Your task to perform on an android device: Is it going to rain tomorrow? Image 0: 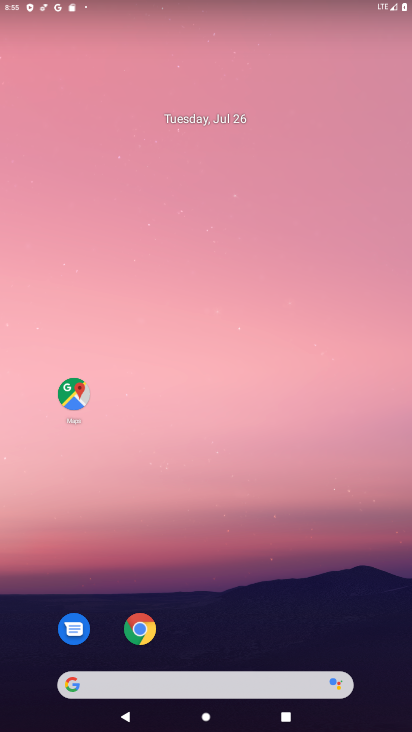
Step 0: press home button
Your task to perform on an android device: Is it going to rain tomorrow? Image 1: 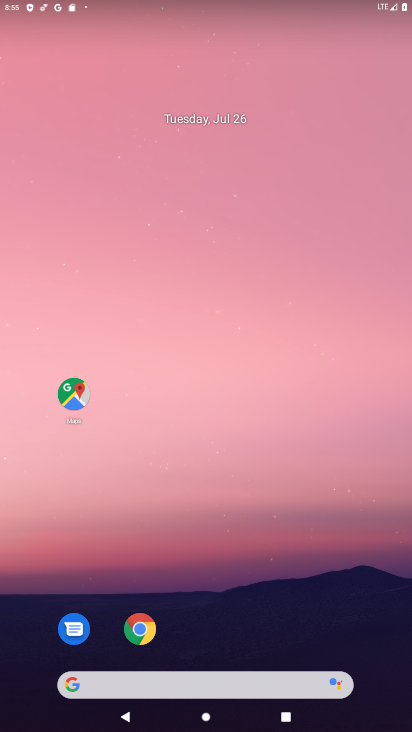
Step 1: drag from (319, 615) to (278, 200)
Your task to perform on an android device: Is it going to rain tomorrow? Image 2: 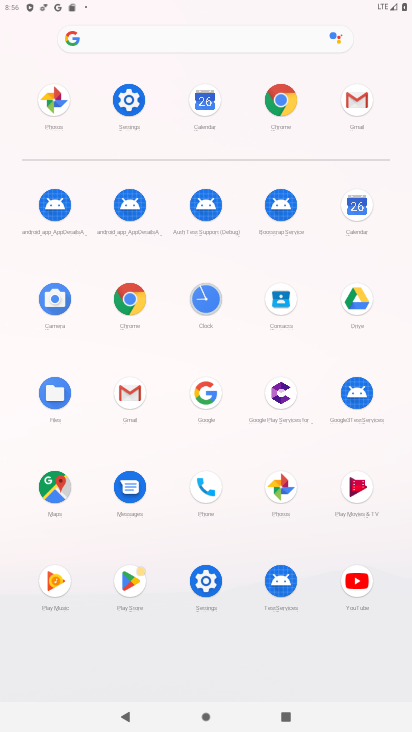
Step 2: click (294, 98)
Your task to perform on an android device: Is it going to rain tomorrow? Image 3: 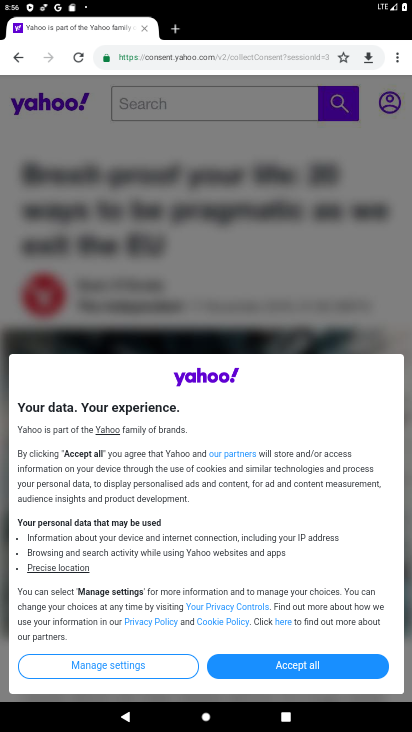
Step 3: click (218, 56)
Your task to perform on an android device: Is it going to rain tomorrow? Image 4: 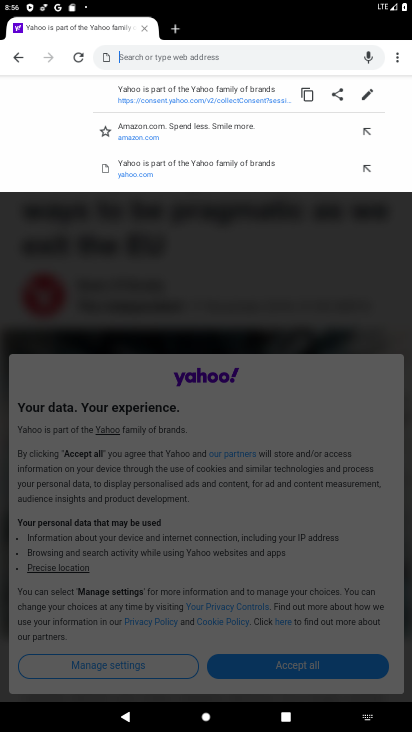
Step 4: type "Is it going to rain tomorrow?"
Your task to perform on an android device: Is it going to rain tomorrow? Image 5: 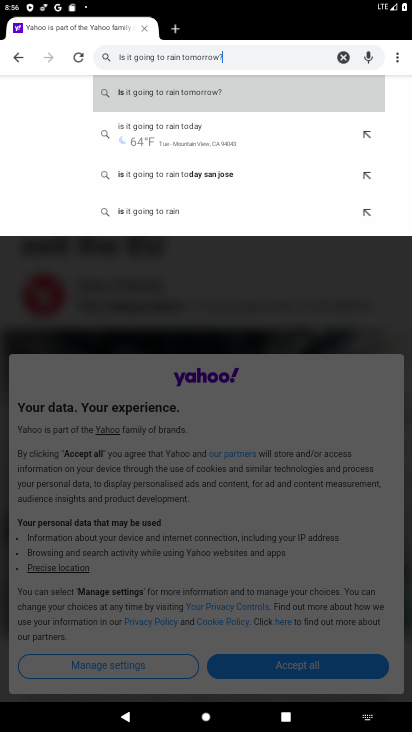
Step 5: type ""
Your task to perform on an android device: Is it going to rain tomorrow? Image 6: 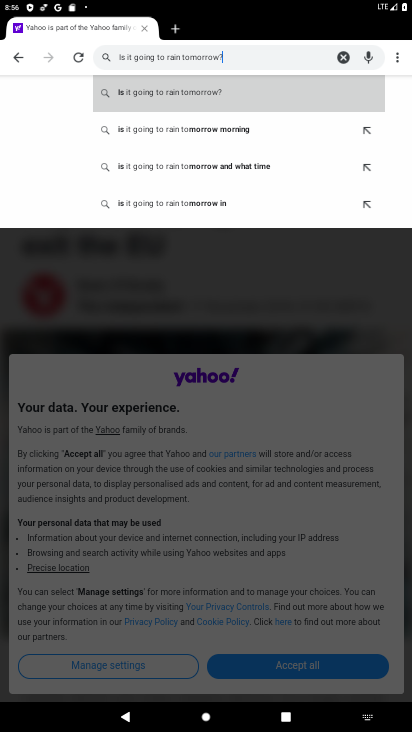
Step 6: click (256, 97)
Your task to perform on an android device: Is it going to rain tomorrow? Image 7: 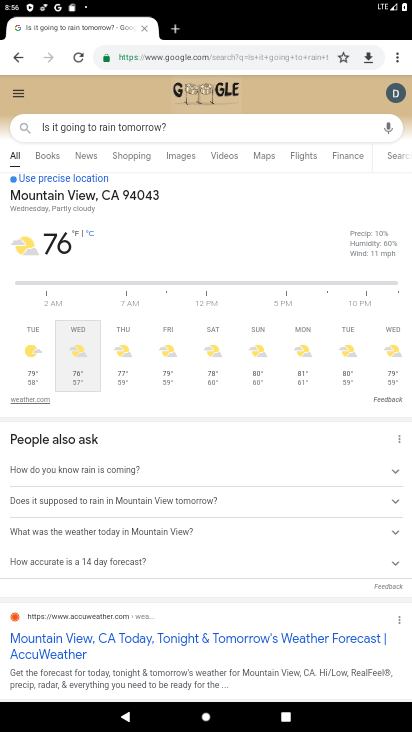
Step 7: task complete